Your task to perform on an android device: Open Chrome and go to settings Image 0: 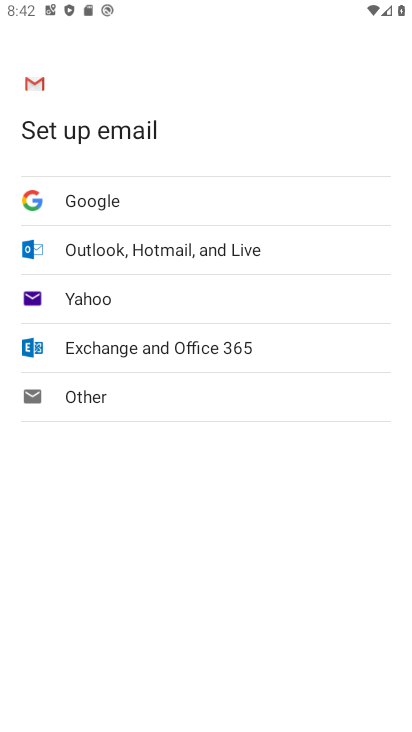
Step 0: press back button
Your task to perform on an android device: Open Chrome and go to settings Image 1: 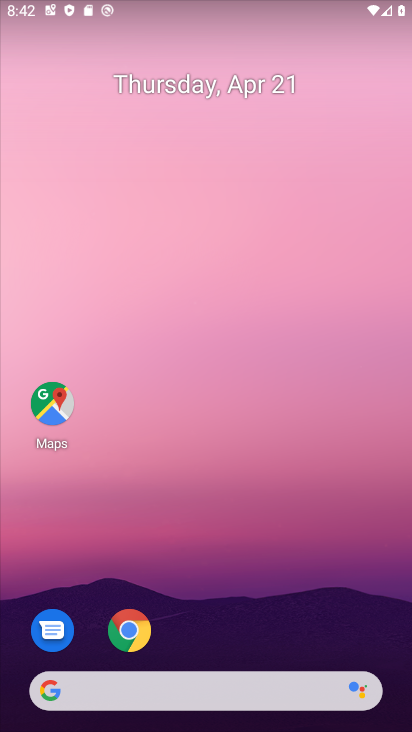
Step 1: click (139, 641)
Your task to perform on an android device: Open Chrome and go to settings Image 2: 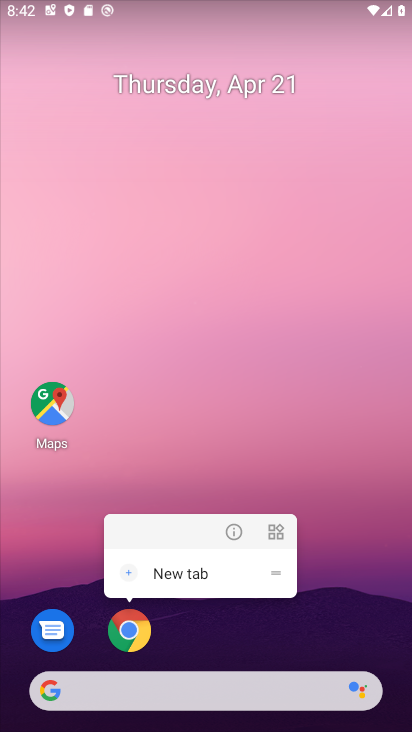
Step 2: click (137, 632)
Your task to perform on an android device: Open Chrome and go to settings Image 3: 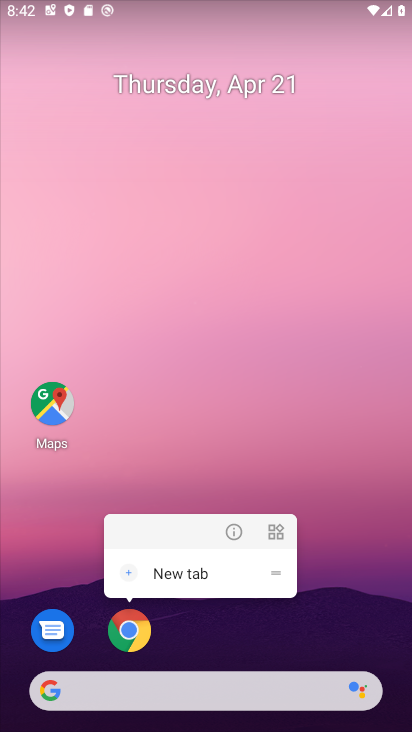
Step 3: click (137, 632)
Your task to perform on an android device: Open Chrome and go to settings Image 4: 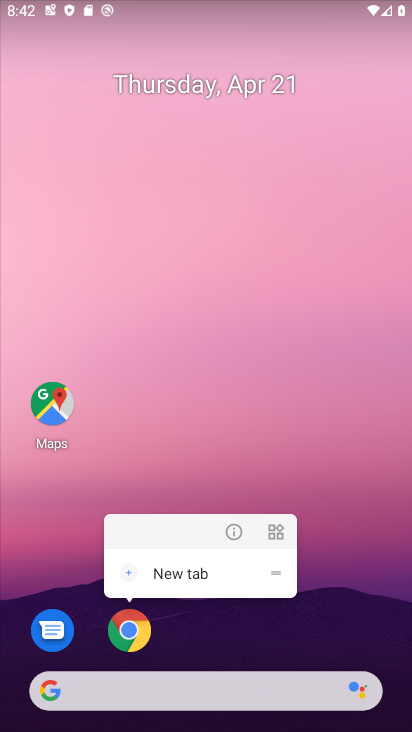
Step 4: click (137, 636)
Your task to perform on an android device: Open Chrome and go to settings Image 5: 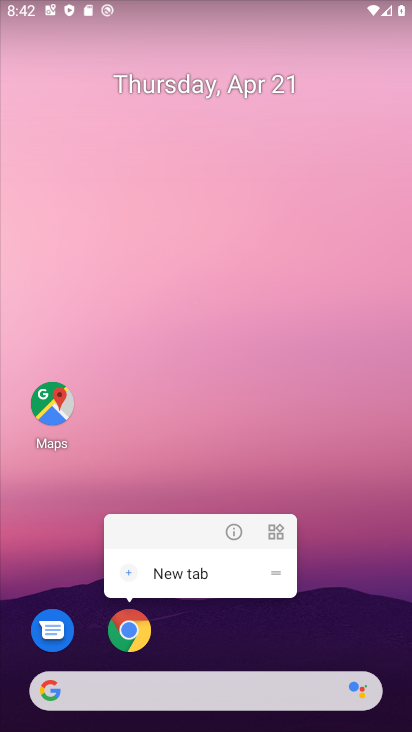
Step 5: click (130, 635)
Your task to perform on an android device: Open Chrome and go to settings Image 6: 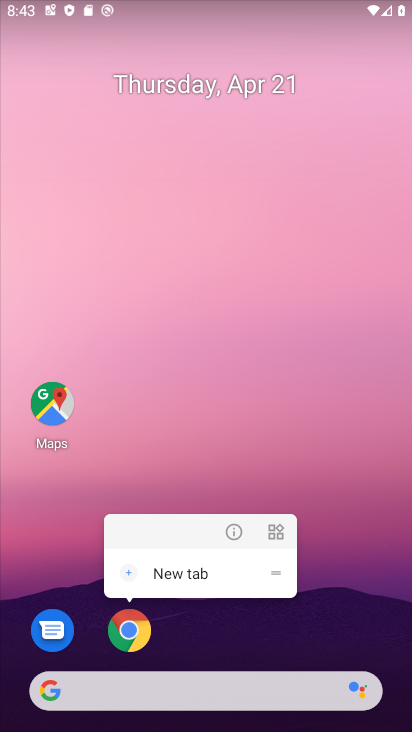
Step 6: click (140, 628)
Your task to perform on an android device: Open Chrome and go to settings Image 7: 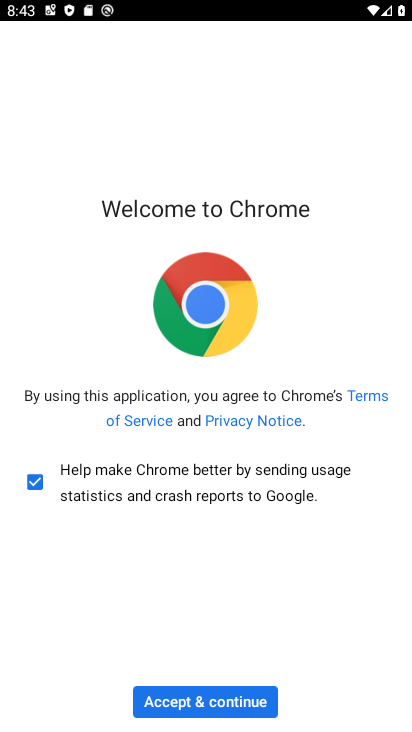
Step 7: click (252, 702)
Your task to perform on an android device: Open Chrome and go to settings Image 8: 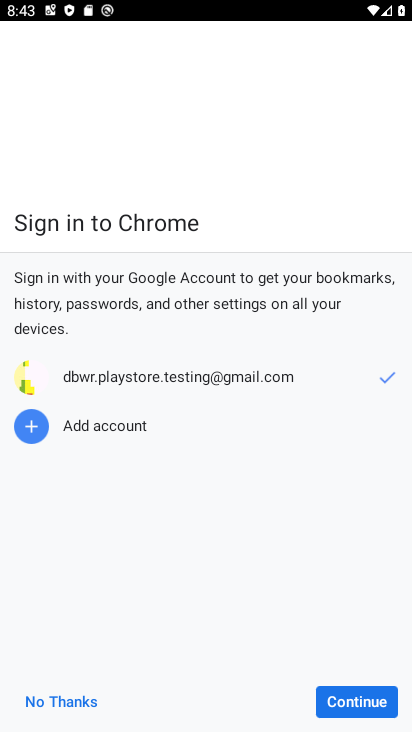
Step 8: click (375, 704)
Your task to perform on an android device: Open Chrome and go to settings Image 9: 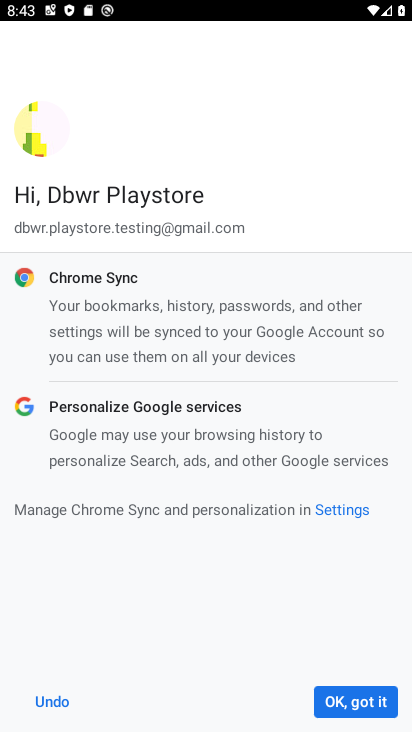
Step 9: click (370, 700)
Your task to perform on an android device: Open Chrome and go to settings Image 10: 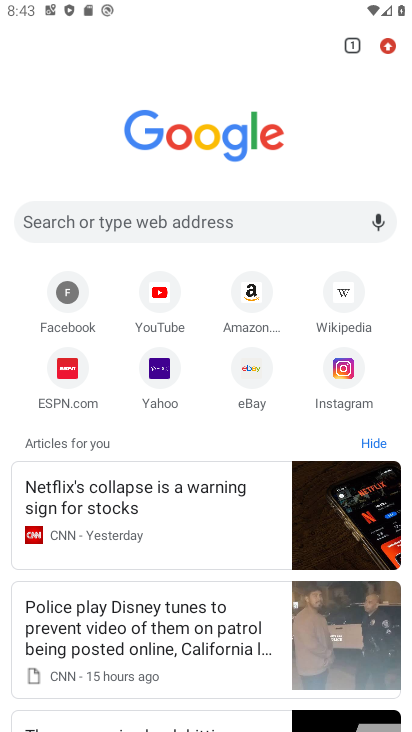
Step 10: task complete